Your task to perform on an android device: toggle priority inbox in the gmail app Image 0: 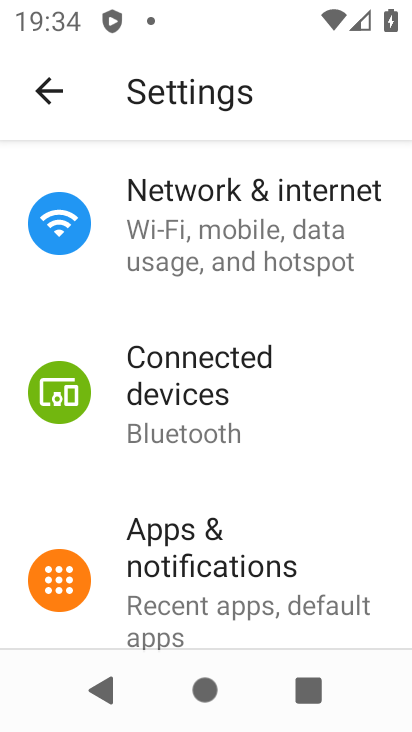
Step 0: press home button
Your task to perform on an android device: toggle priority inbox in the gmail app Image 1: 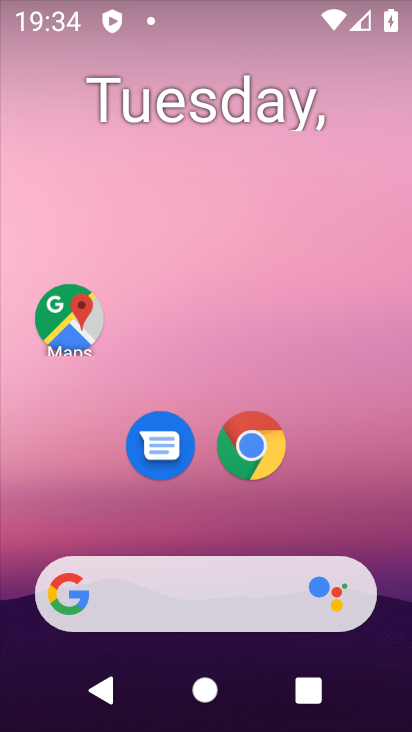
Step 1: drag from (288, 521) to (119, 34)
Your task to perform on an android device: toggle priority inbox in the gmail app Image 2: 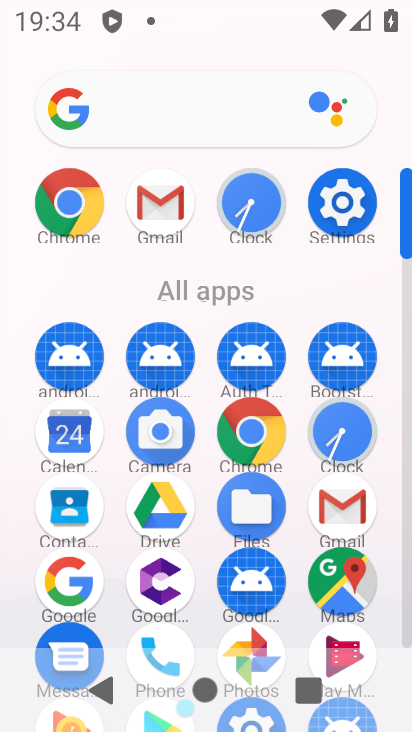
Step 2: click (161, 232)
Your task to perform on an android device: toggle priority inbox in the gmail app Image 3: 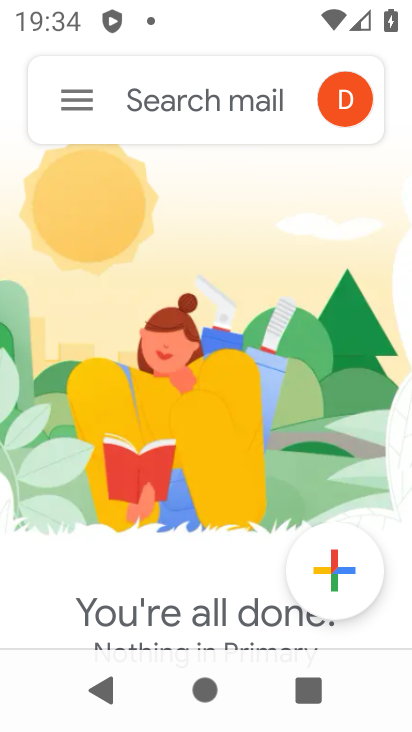
Step 3: click (68, 104)
Your task to perform on an android device: toggle priority inbox in the gmail app Image 4: 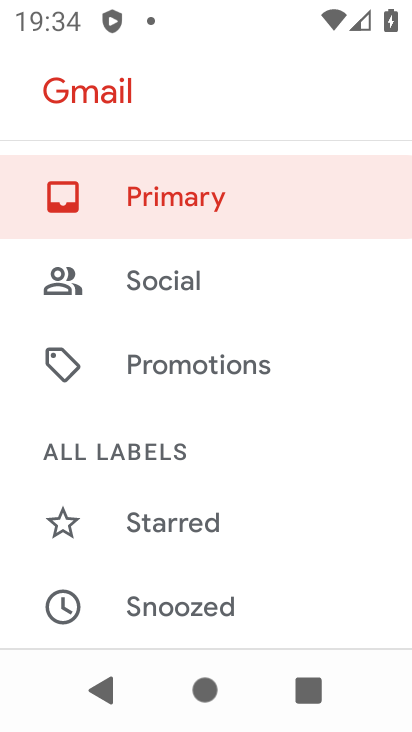
Step 4: drag from (169, 594) to (168, 158)
Your task to perform on an android device: toggle priority inbox in the gmail app Image 5: 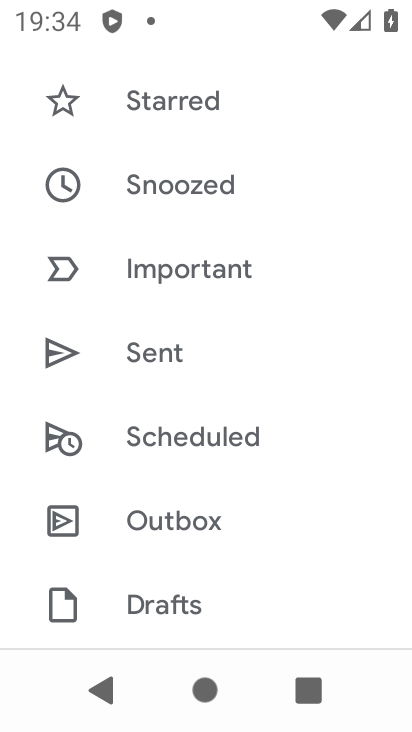
Step 5: drag from (190, 589) to (217, 268)
Your task to perform on an android device: toggle priority inbox in the gmail app Image 6: 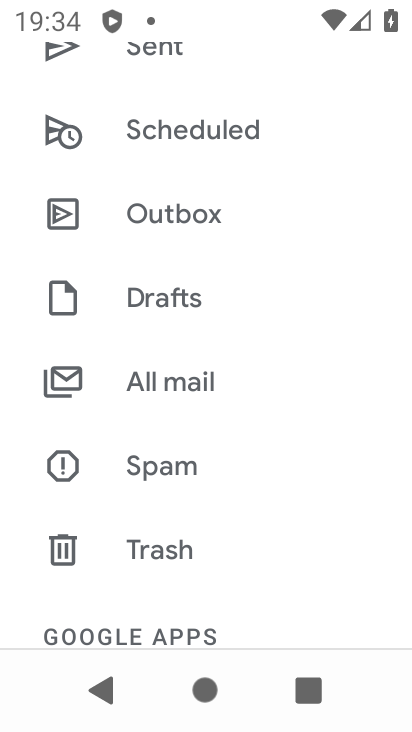
Step 6: drag from (200, 626) to (196, 333)
Your task to perform on an android device: toggle priority inbox in the gmail app Image 7: 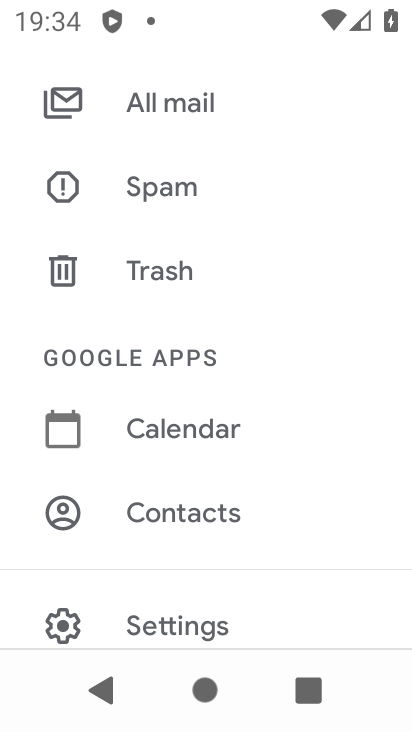
Step 7: click (189, 634)
Your task to perform on an android device: toggle priority inbox in the gmail app Image 8: 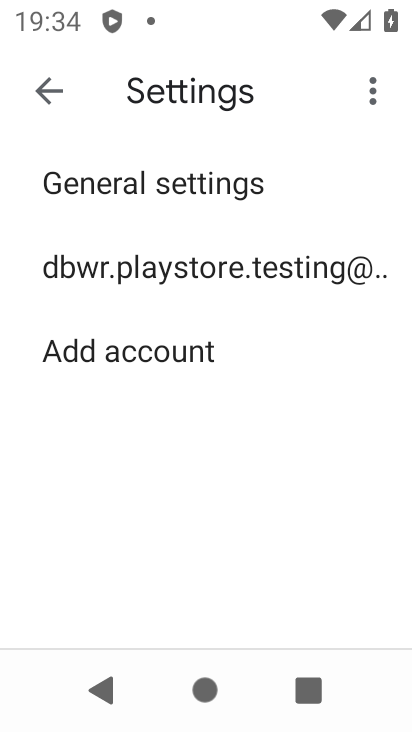
Step 8: click (115, 253)
Your task to perform on an android device: toggle priority inbox in the gmail app Image 9: 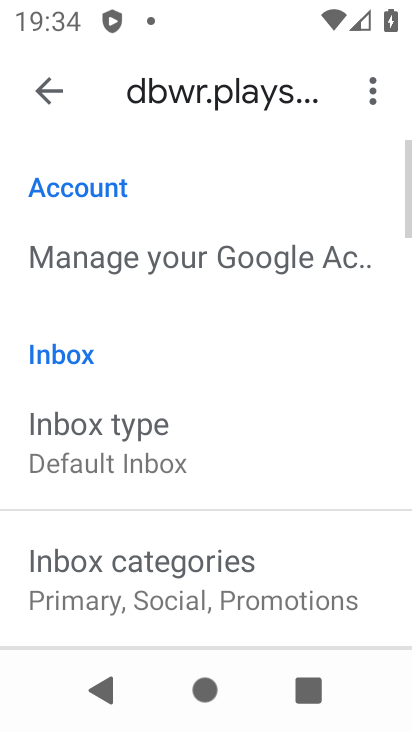
Step 9: click (109, 462)
Your task to perform on an android device: toggle priority inbox in the gmail app Image 10: 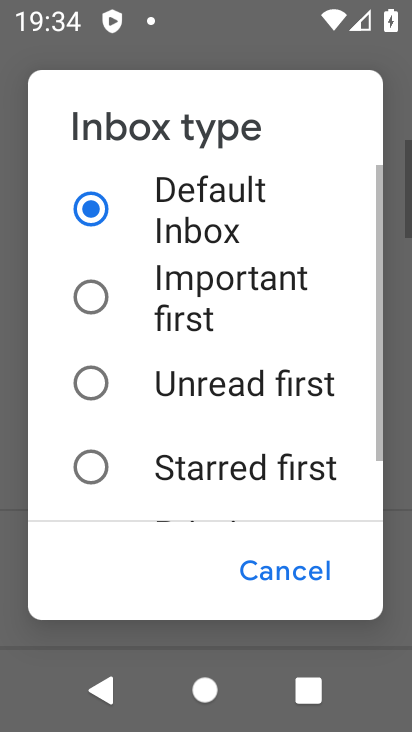
Step 10: drag from (106, 467) to (116, 317)
Your task to perform on an android device: toggle priority inbox in the gmail app Image 11: 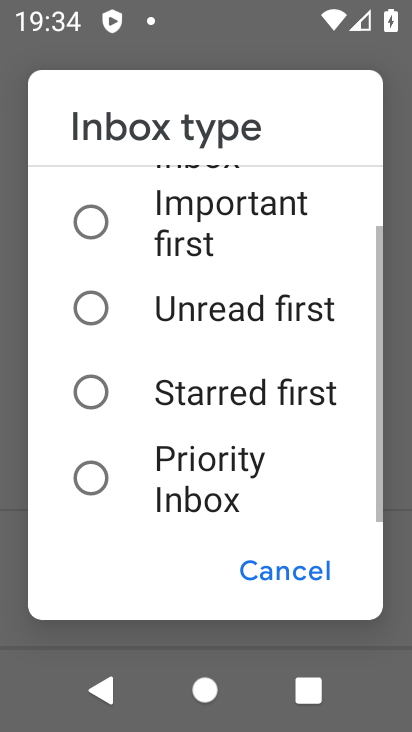
Step 11: click (96, 474)
Your task to perform on an android device: toggle priority inbox in the gmail app Image 12: 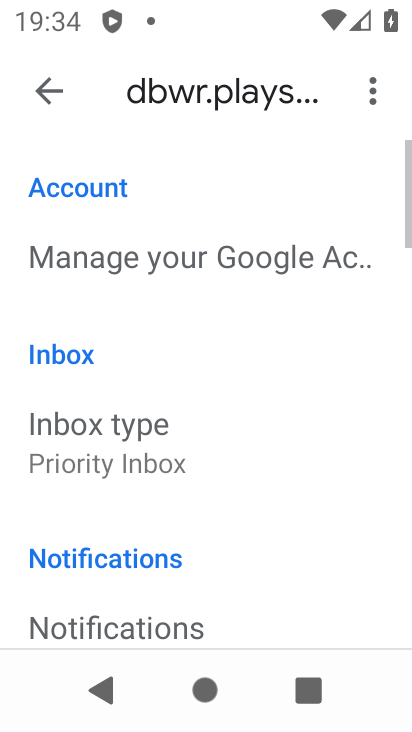
Step 12: task complete